Your task to perform on an android device: What's on my calendar tomorrow? Image 0: 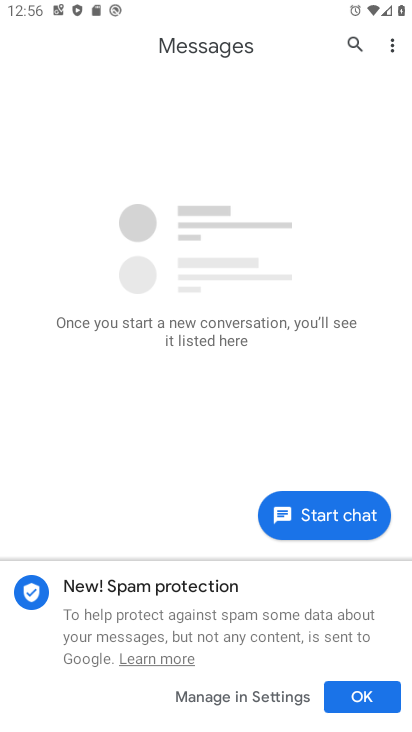
Step 0: press home button
Your task to perform on an android device: What's on my calendar tomorrow? Image 1: 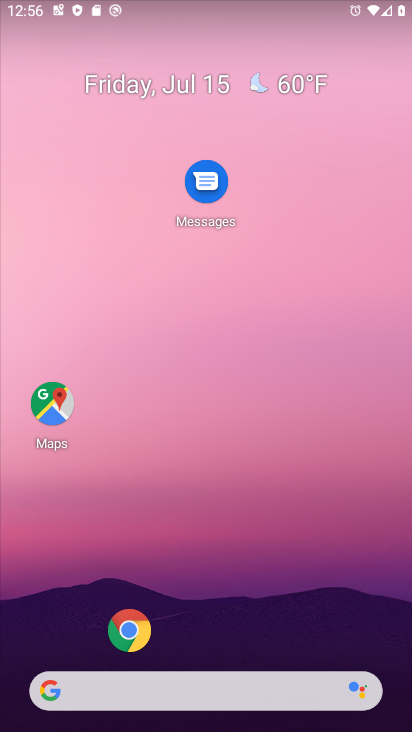
Step 1: drag from (55, 645) to (375, 66)
Your task to perform on an android device: What's on my calendar tomorrow? Image 2: 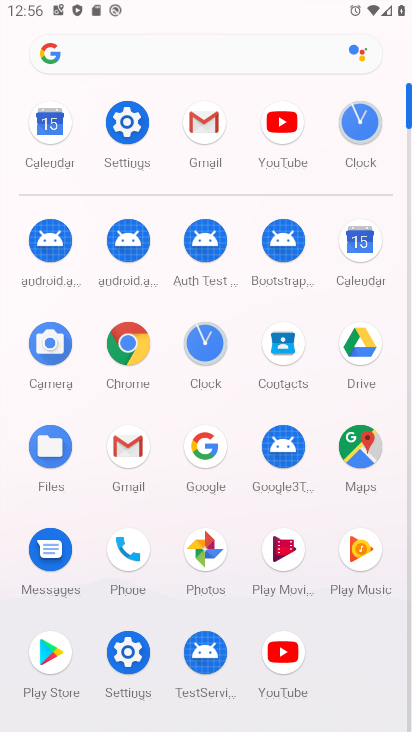
Step 2: click (351, 233)
Your task to perform on an android device: What's on my calendar tomorrow? Image 3: 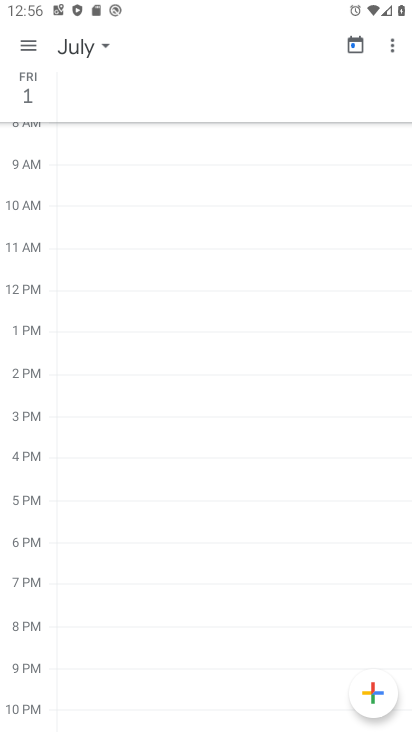
Step 3: click (82, 48)
Your task to perform on an android device: What's on my calendar tomorrow? Image 4: 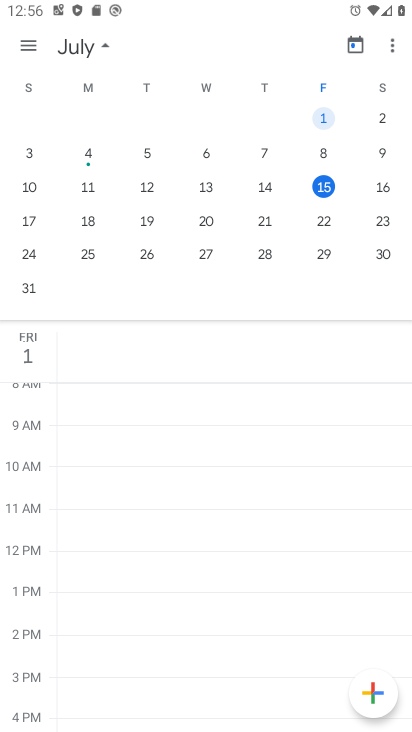
Step 4: click (393, 46)
Your task to perform on an android device: What's on my calendar tomorrow? Image 5: 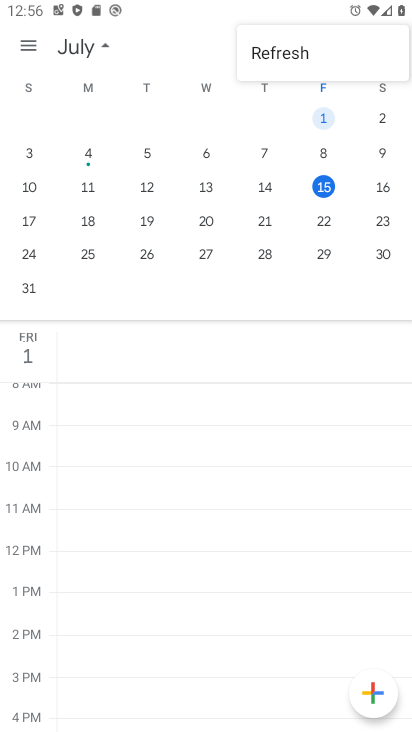
Step 5: task complete